Your task to perform on an android device: Go to sound settings Image 0: 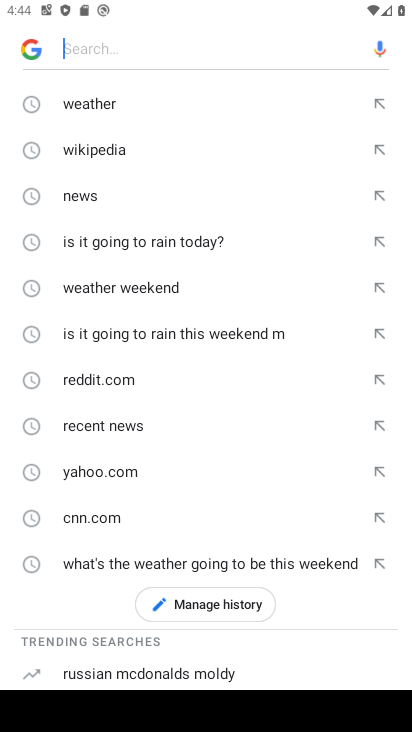
Step 0: press home button
Your task to perform on an android device: Go to sound settings Image 1: 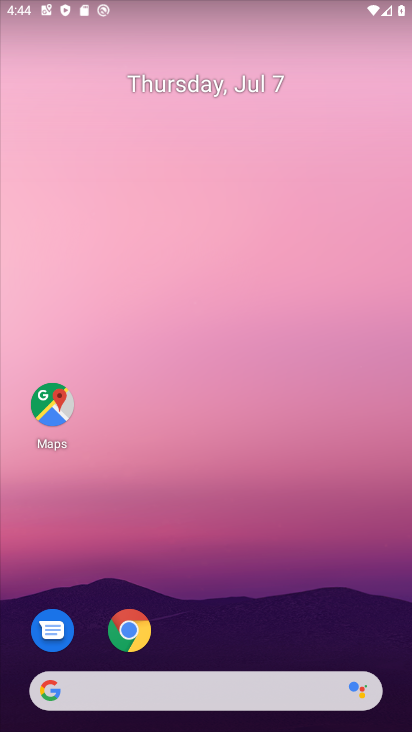
Step 1: drag from (178, 13) to (162, 549)
Your task to perform on an android device: Go to sound settings Image 2: 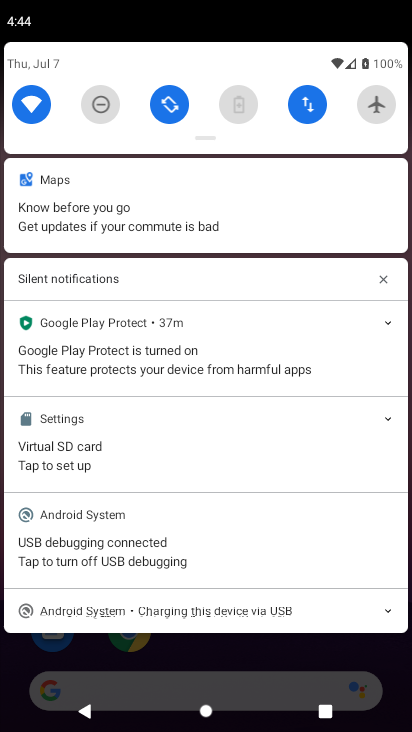
Step 2: drag from (209, 61) to (214, 562)
Your task to perform on an android device: Go to sound settings Image 3: 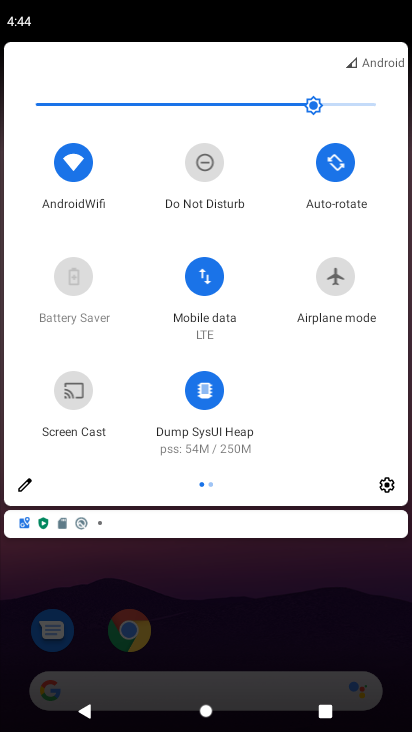
Step 3: click (384, 475)
Your task to perform on an android device: Go to sound settings Image 4: 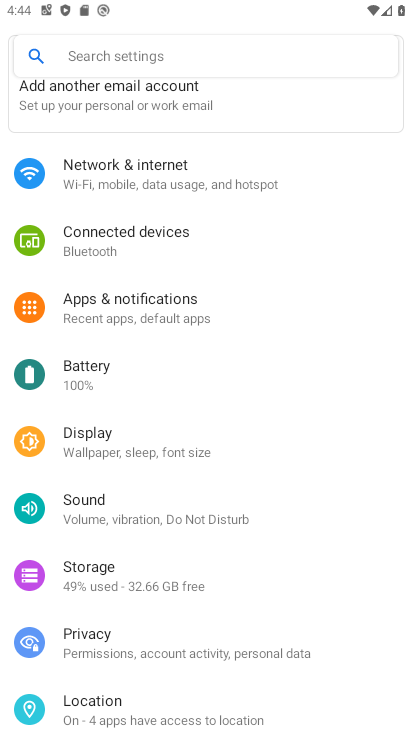
Step 4: click (125, 504)
Your task to perform on an android device: Go to sound settings Image 5: 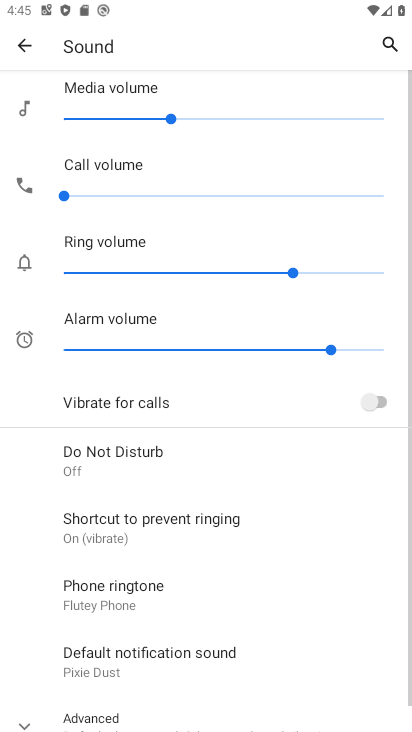
Step 5: task complete